Your task to perform on an android device: turn on the 12-hour format for clock Image 0: 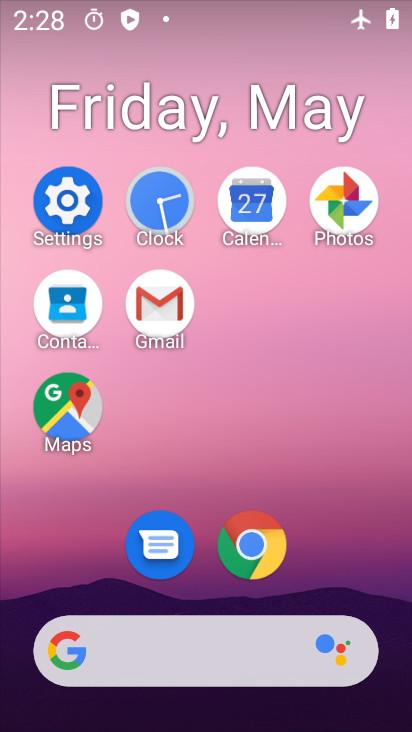
Step 0: click (90, 200)
Your task to perform on an android device: turn on the 12-hour format for clock Image 1: 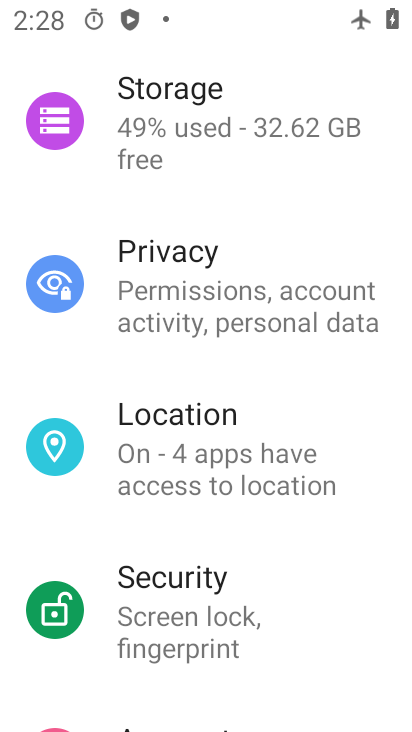
Step 1: drag from (224, 136) to (247, 659)
Your task to perform on an android device: turn on the 12-hour format for clock Image 2: 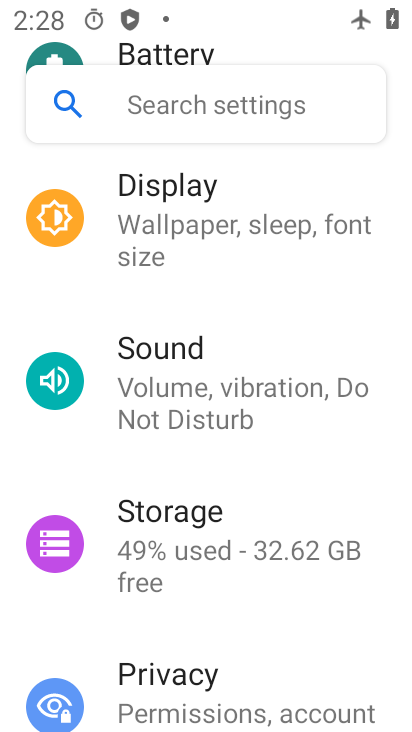
Step 2: drag from (236, 156) to (253, 698)
Your task to perform on an android device: turn on the 12-hour format for clock Image 3: 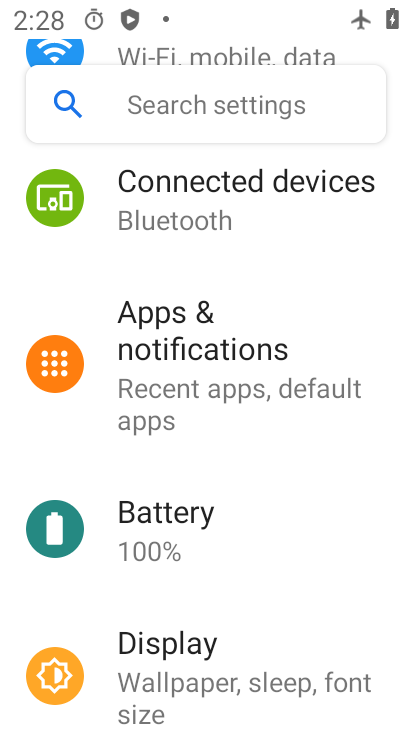
Step 3: drag from (287, 215) to (324, 726)
Your task to perform on an android device: turn on the 12-hour format for clock Image 4: 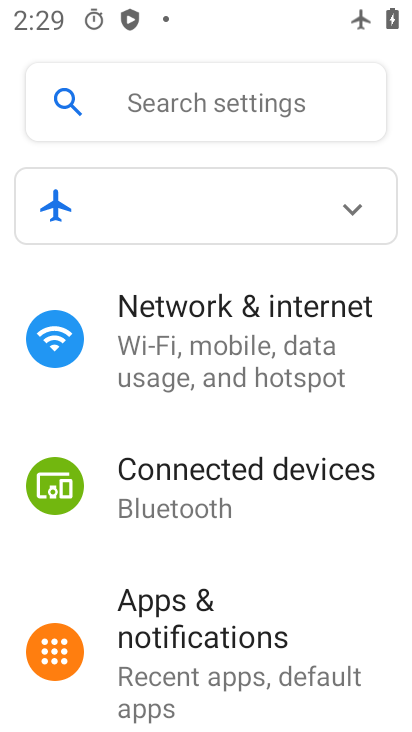
Step 4: click (242, 347)
Your task to perform on an android device: turn on the 12-hour format for clock Image 5: 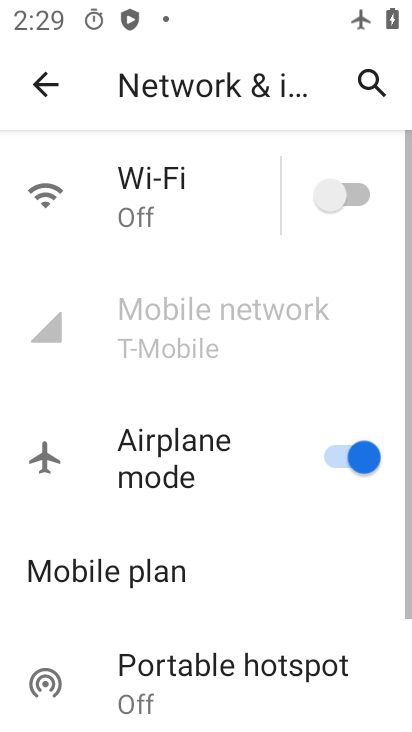
Step 5: click (345, 199)
Your task to perform on an android device: turn on the 12-hour format for clock Image 6: 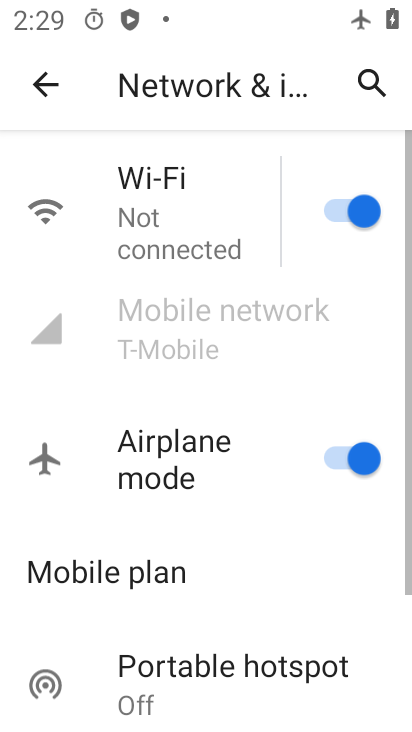
Step 6: click (350, 463)
Your task to perform on an android device: turn on the 12-hour format for clock Image 7: 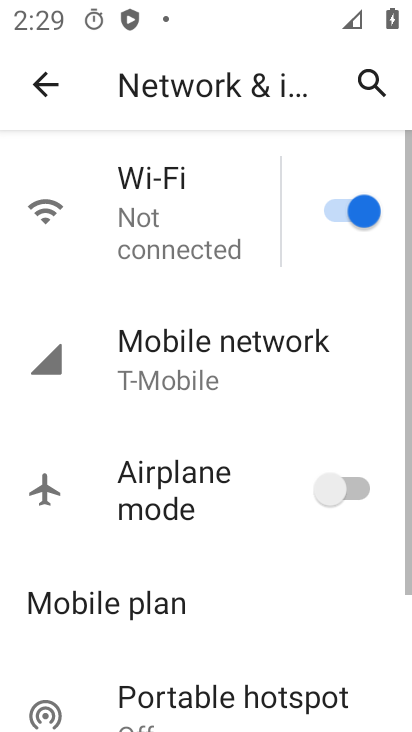
Step 7: press home button
Your task to perform on an android device: turn on the 12-hour format for clock Image 8: 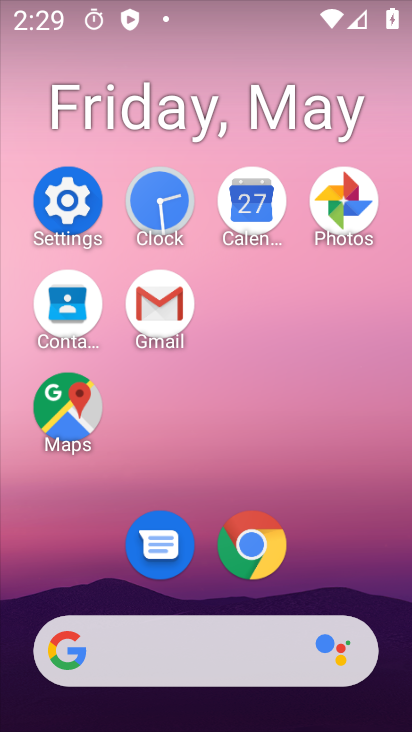
Step 8: click (175, 196)
Your task to perform on an android device: turn on the 12-hour format for clock Image 9: 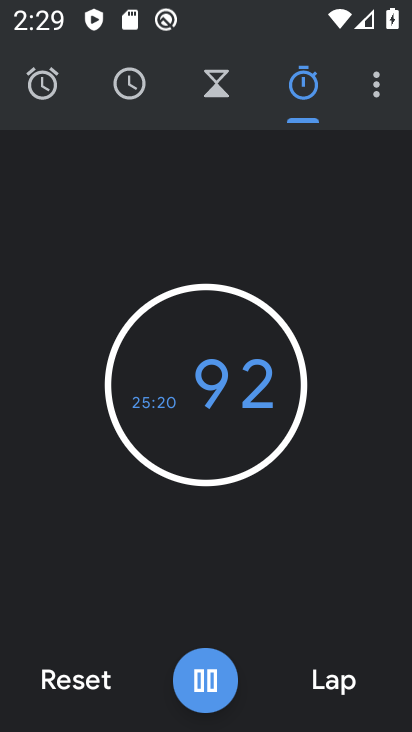
Step 9: click (375, 96)
Your task to perform on an android device: turn on the 12-hour format for clock Image 10: 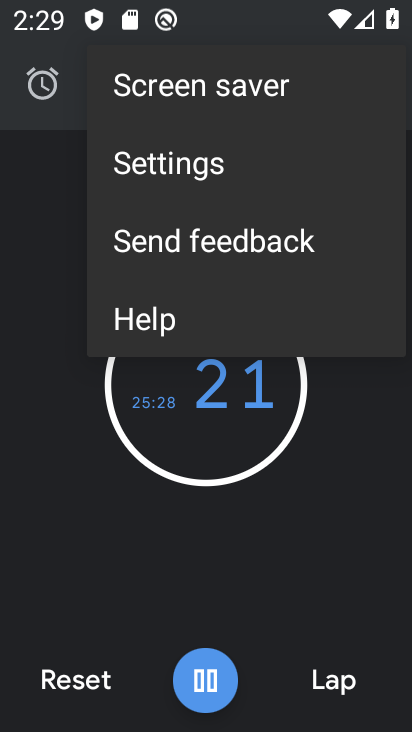
Step 10: click (193, 148)
Your task to perform on an android device: turn on the 12-hour format for clock Image 11: 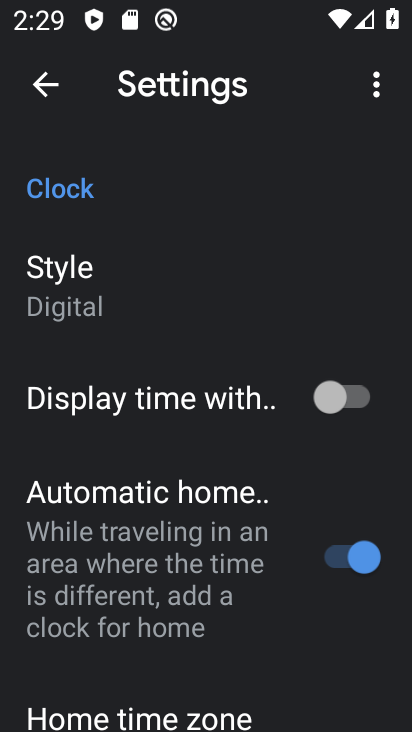
Step 11: drag from (198, 546) to (221, 135)
Your task to perform on an android device: turn on the 12-hour format for clock Image 12: 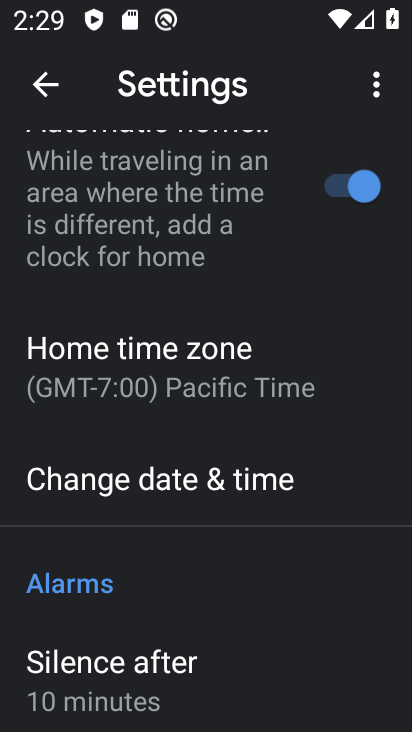
Step 12: click (204, 495)
Your task to perform on an android device: turn on the 12-hour format for clock Image 13: 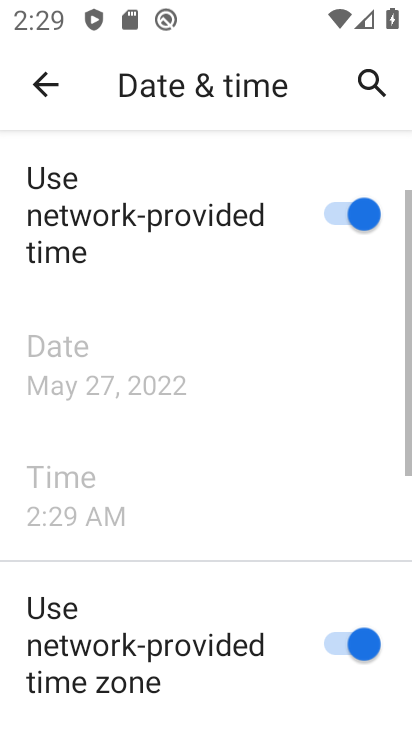
Step 13: task complete